Your task to perform on an android device: uninstall "The Home Depot" Image 0: 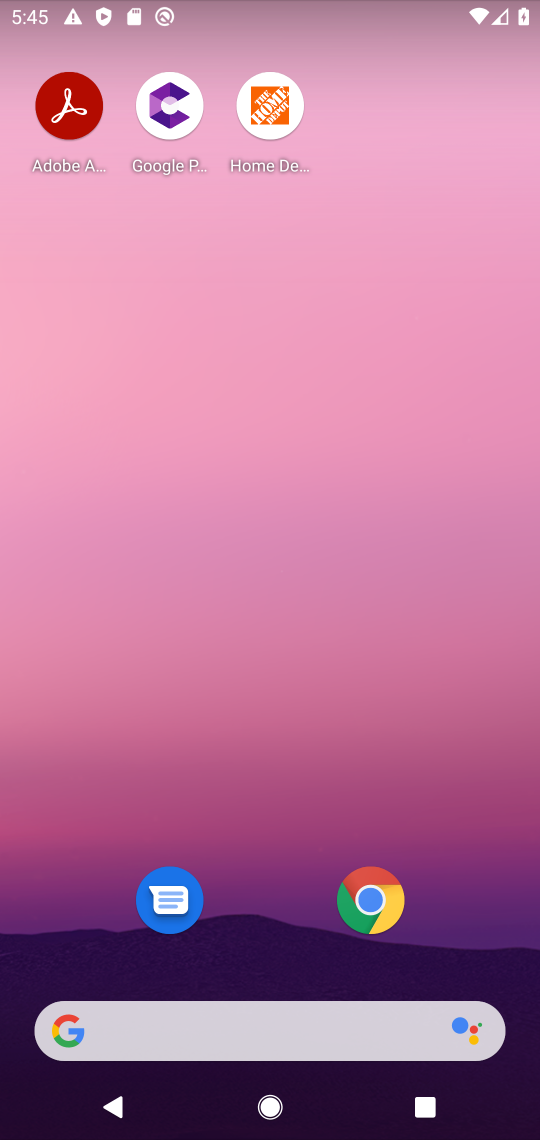
Step 0: drag from (430, 974) to (484, 4)
Your task to perform on an android device: uninstall "The Home Depot" Image 1: 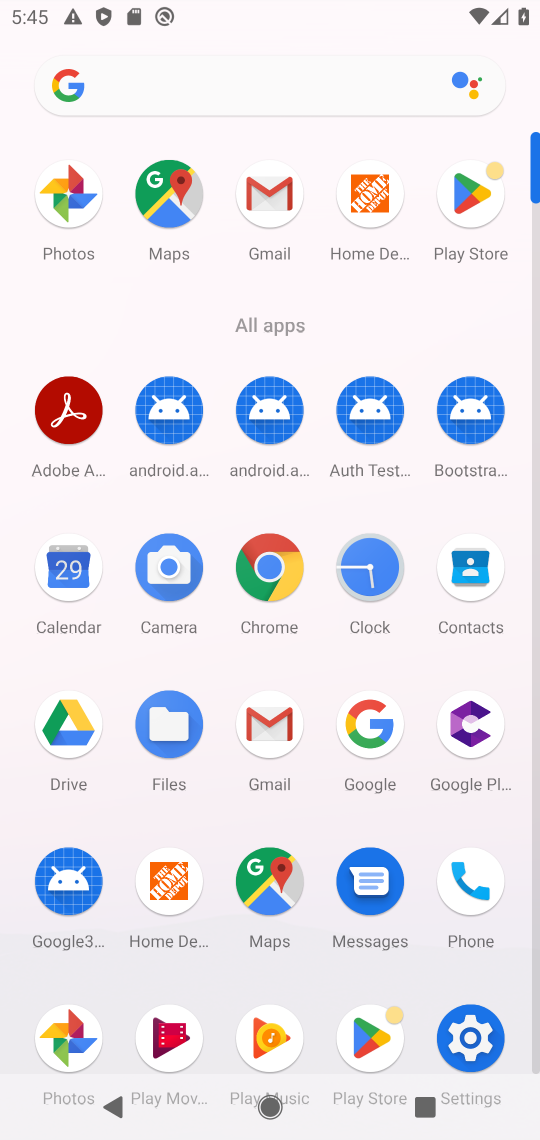
Step 1: click (456, 184)
Your task to perform on an android device: uninstall "The Home Depot" Image 2: 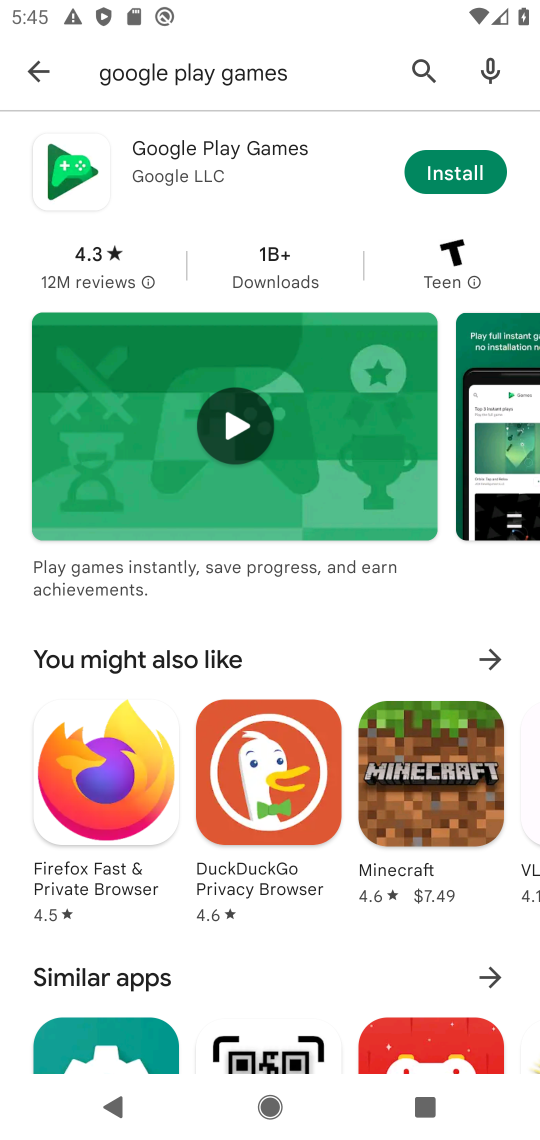
Step 2: click (426, 63)
Your task to perform on an android device: uninstall "The Home Depot" Image 3: 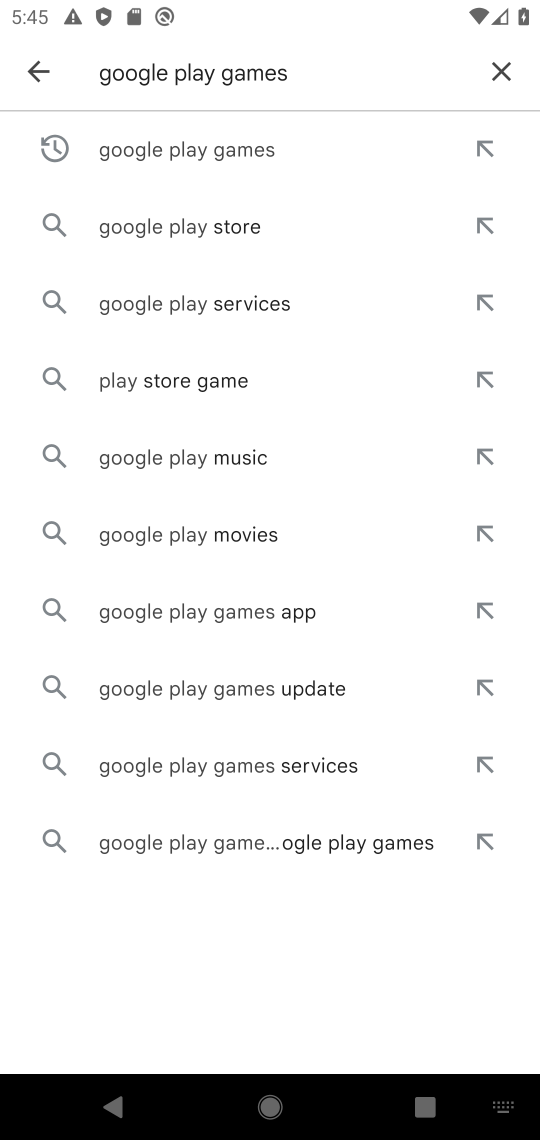
Step 3: click (498, 60)
Your task to perform on an android device: uninstall "The Home Depot" Image 4: 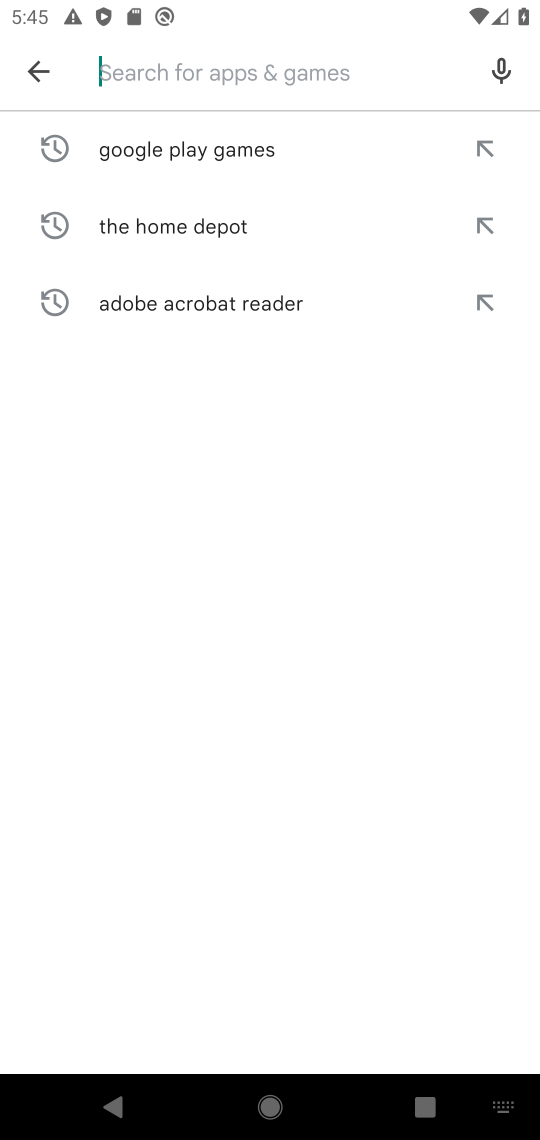
Step 4: type "the home depot"
Your task to perform on an android device: uninstall "The Home Depot" Image 5: 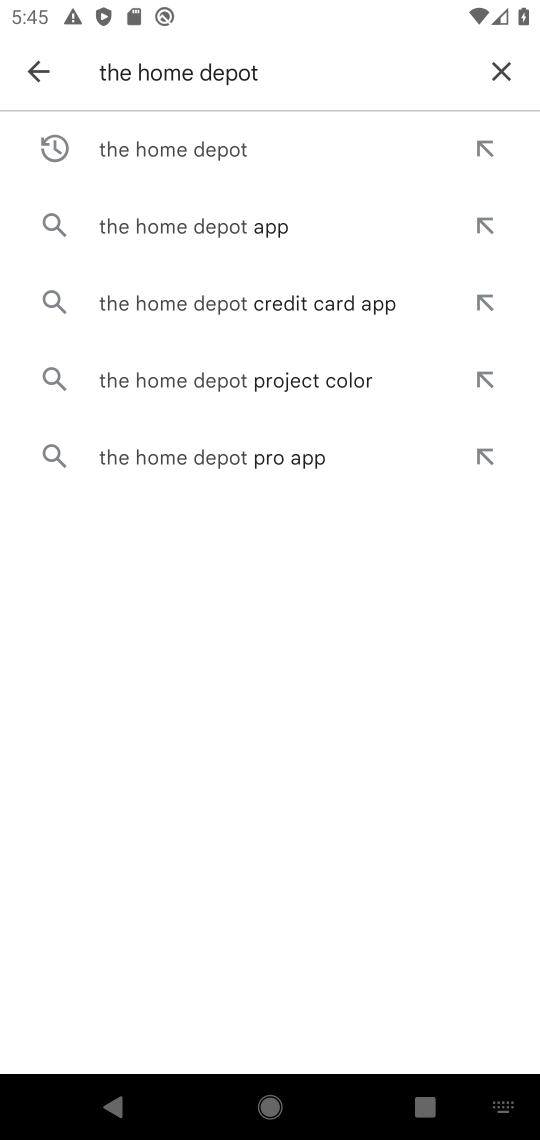
Step 5: click (269, 156)
Your task to perform on an android device: uninstall "The Home Depot" Image 6: 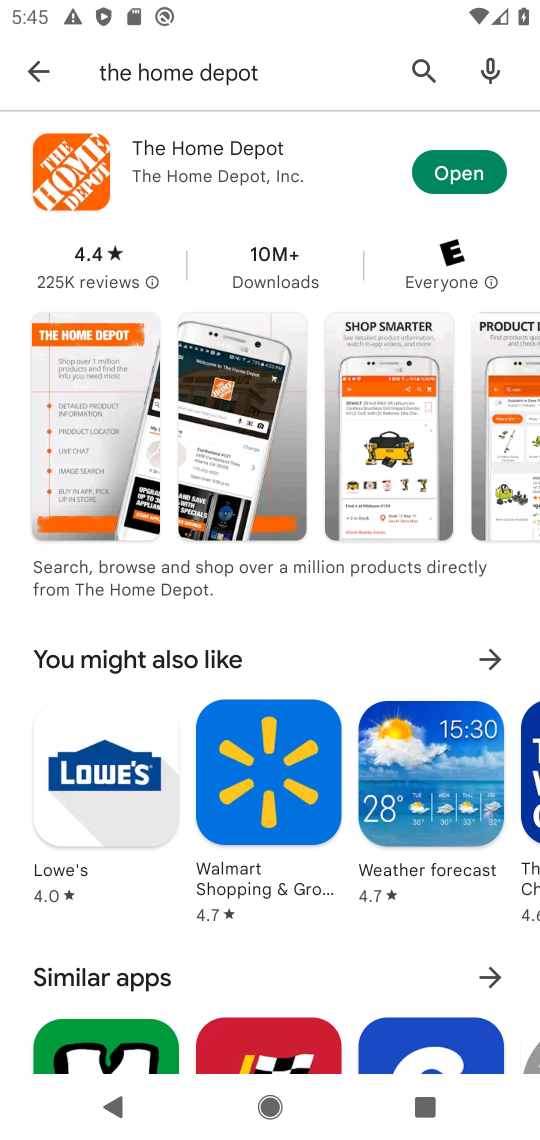
Step 6: task complete